Your task to perform on an android device: Open my contact list Image 0: 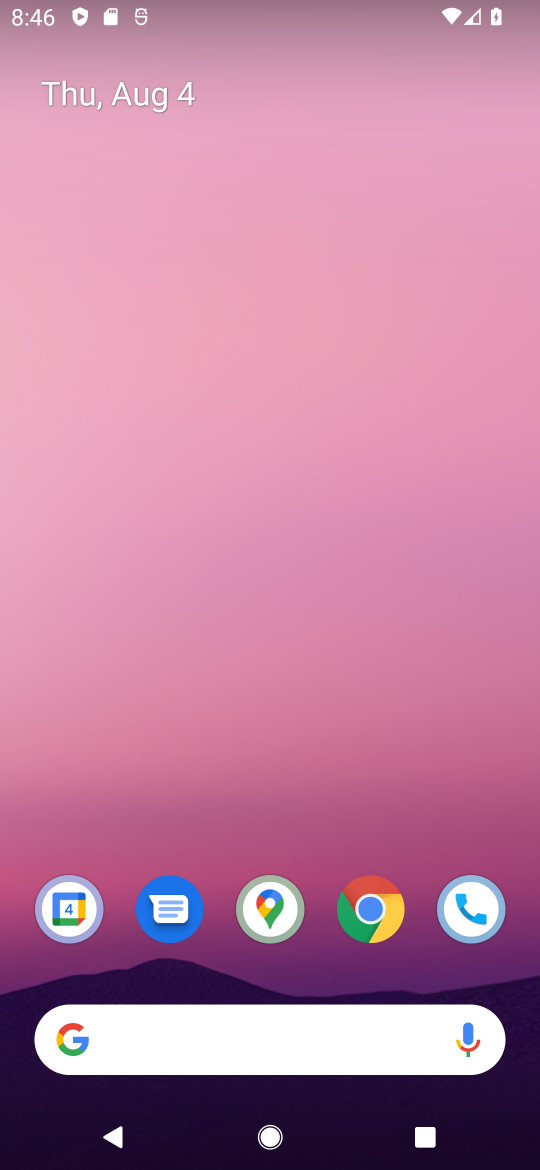
Step 0: press home button
Your task to perform on an android device: Open my contact list Image 1: 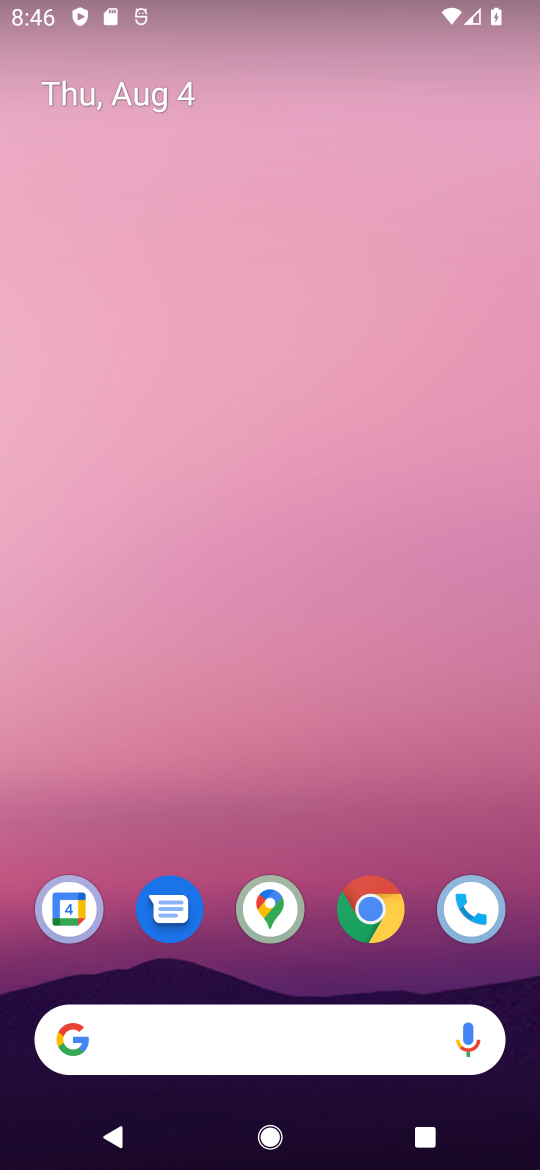
Step 1: drag from (308, 770) to (307, 245)
Your task to perform on an android device: Open my contact list Image 2: 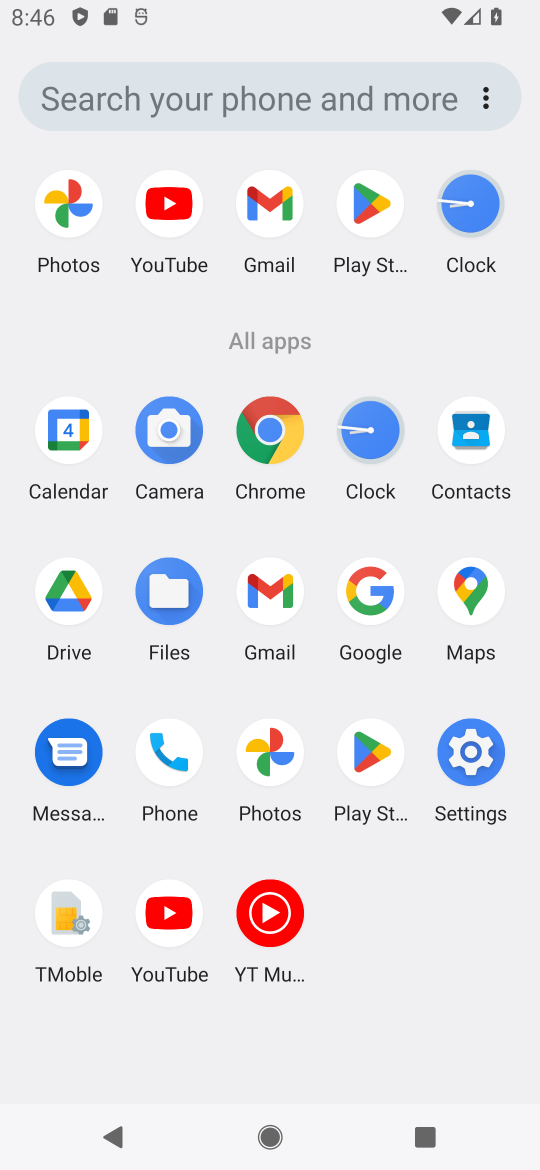
Step 2: click (479, 435)
Your task to perform on an android device: Open my contact list Image 3: 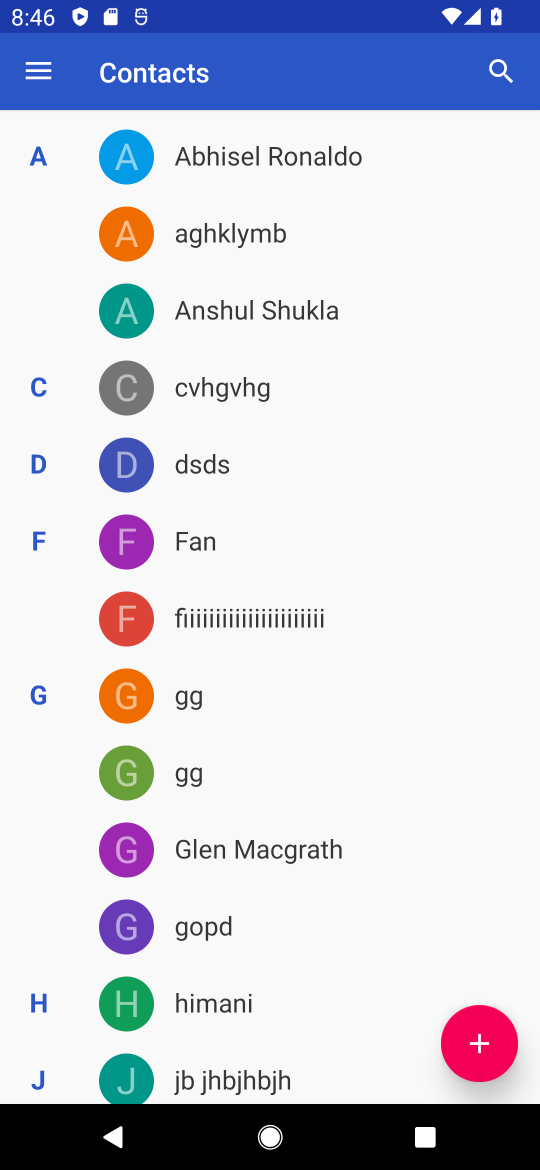
Step 3: task complete